Your task to perform on an android device: change the clock display to show seconds Image 0: 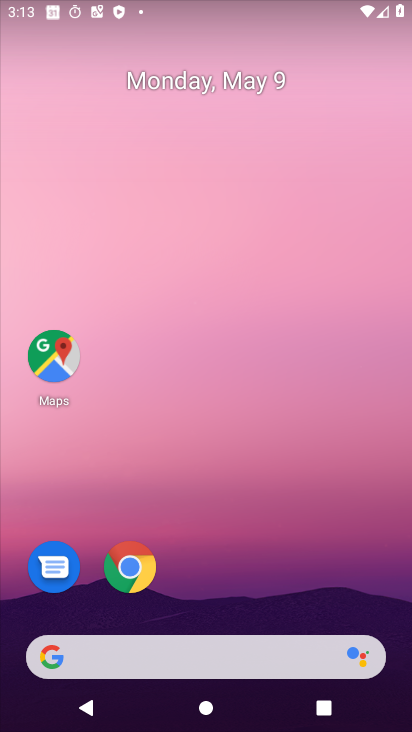
Step 0: drag from (259, 590) to (258, 34)
Your task to perform on an android device: change the clock display to show seconds Image 1: 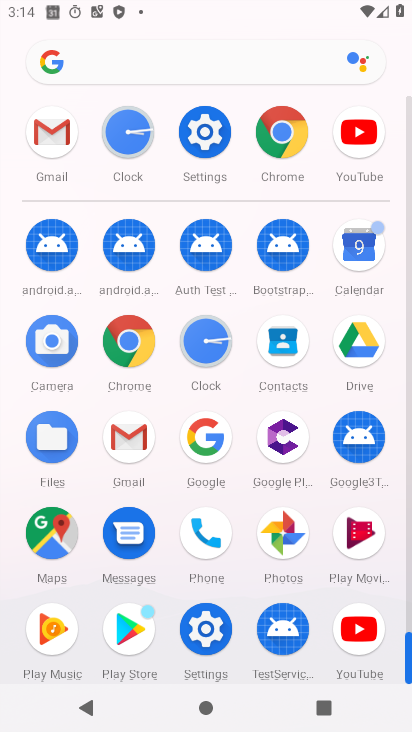
Step 1: click (131, 136)
Your task to perform on an android device: change the clock display to show seconds Image 2: 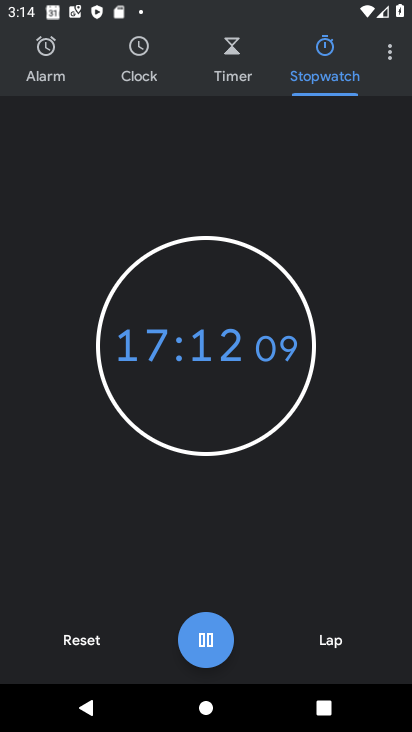
Step 2: click (392, 55)
Your task to perform on an android device: change the clock display to show seconds Image 3: 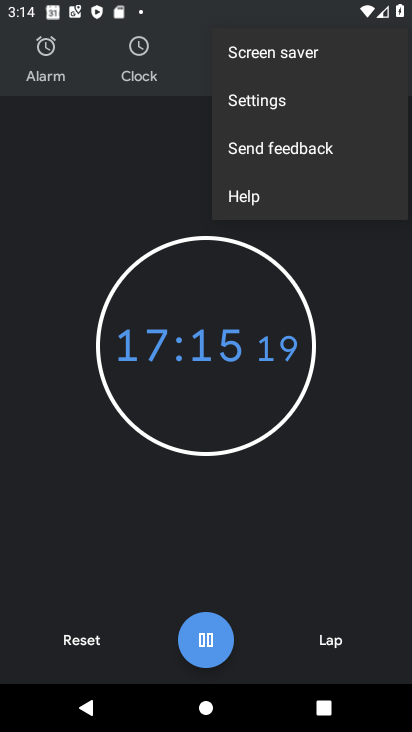
Step 3: click (261, 104)
Your task to perform on an android device: change the clock display to show seconds Image 4: 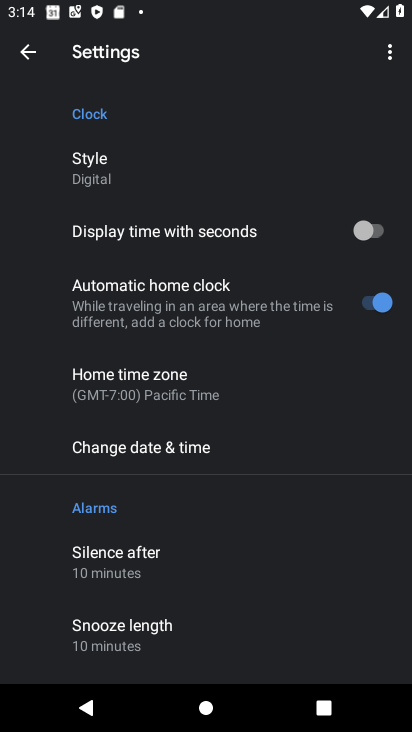
Step 4: click (376, 233)
Your task to perform on an android device: change the clock display to show seconds Image 5: 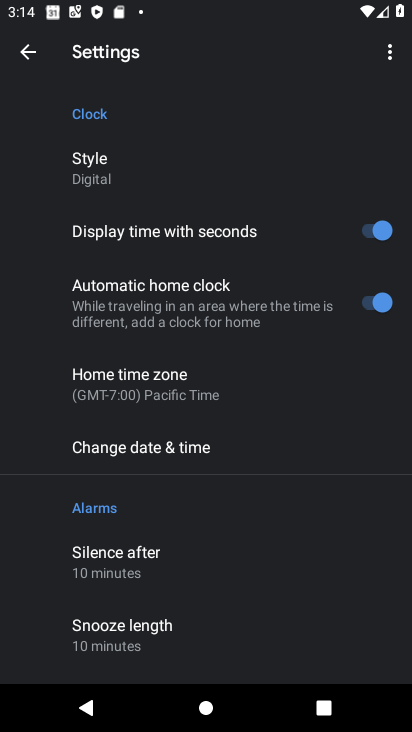
Step 5: task complete